Your task to perform on an android device: View the shopping cart on walmart.com. Add "dell xps" to the cart on walmart.com, then select checkout. Image 0: 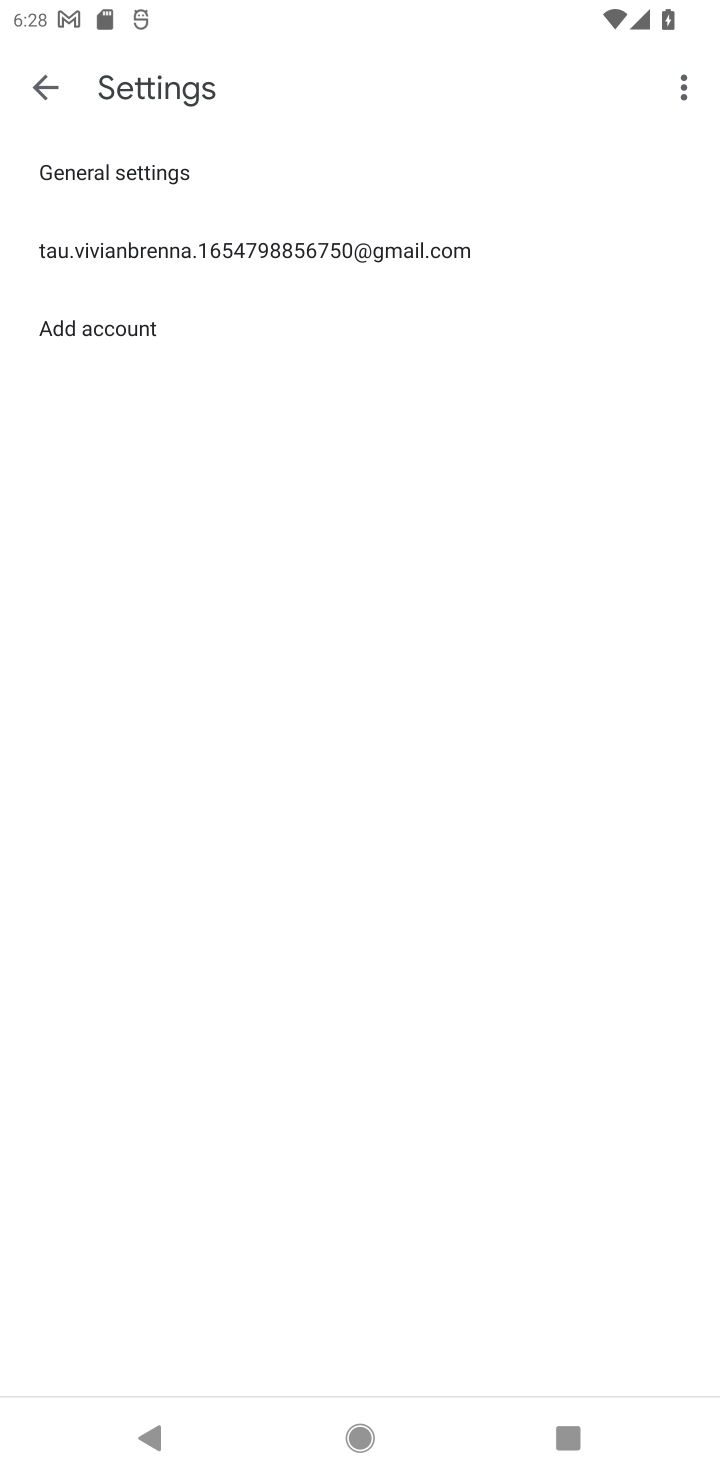
Step 0: press home button
Your task to perform on an android device: View the shopping cart on walmart.com. Add "dell xps" to the cart on walmart.com, then select checkout. Image 1: 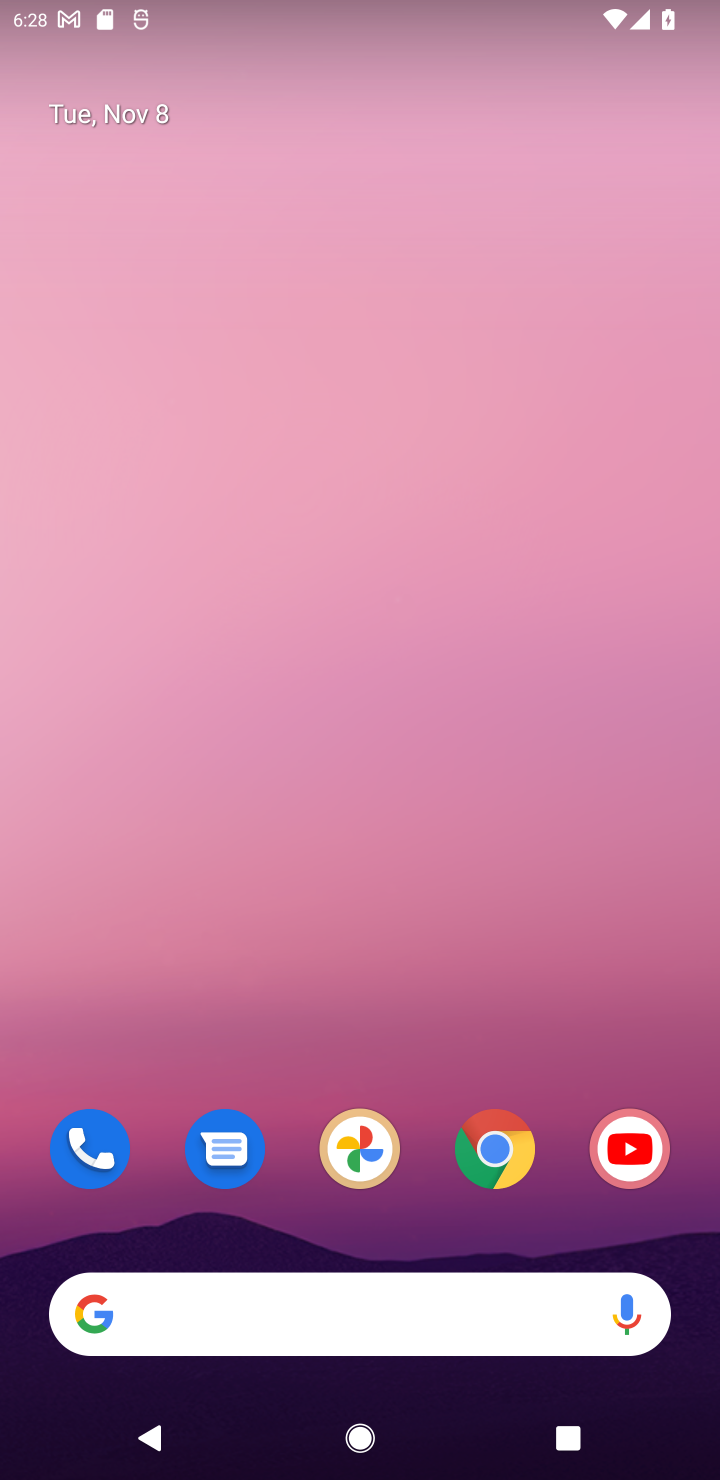
Step 1: click (463, 1147)
Your task to perform on an android device: View the shopping cart on walmart.com. Add "dell xps" to the cart on walmart.com, then select checkout. Image 2: 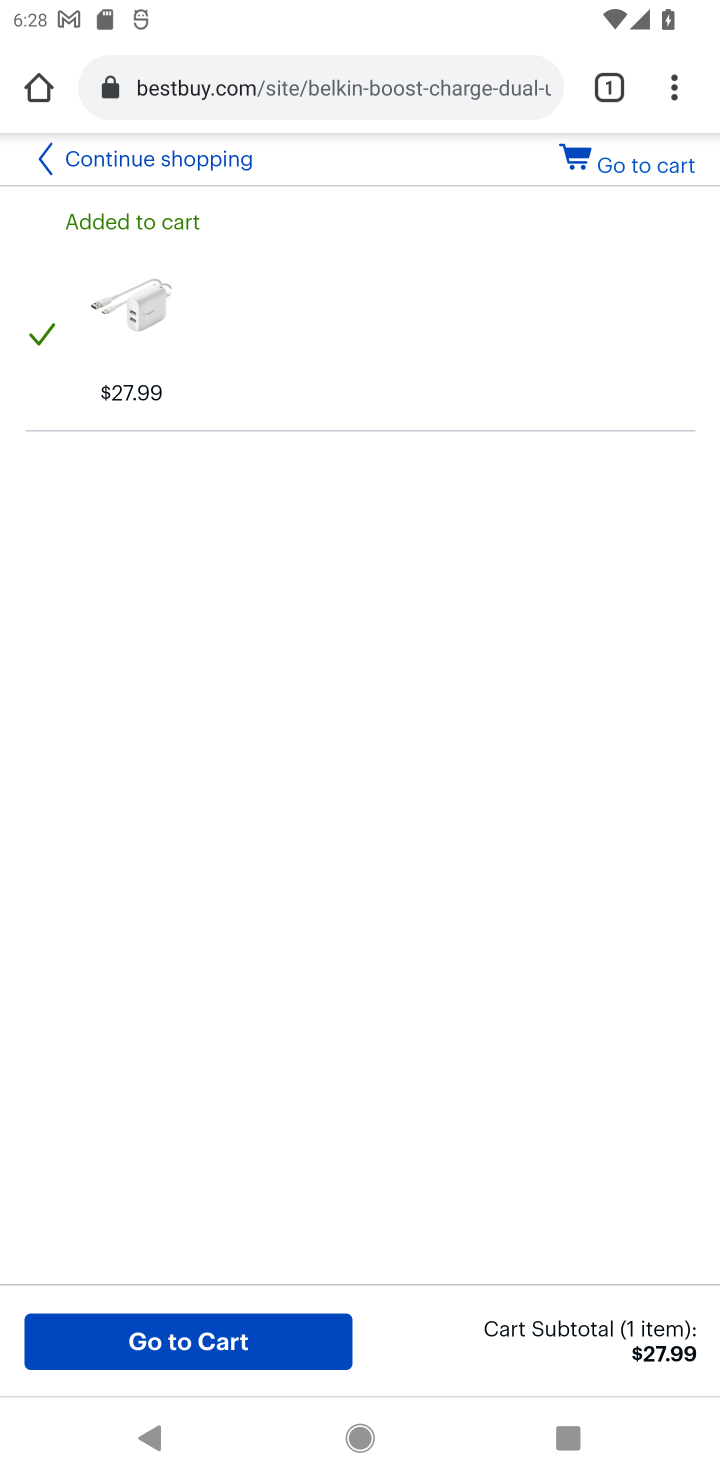
Step 2: press home button
Your task to perform on an android device: View the shopping cart on walmart.com. Add "dell xps" to the cart on walmart.com, then select checkout. Image 3: 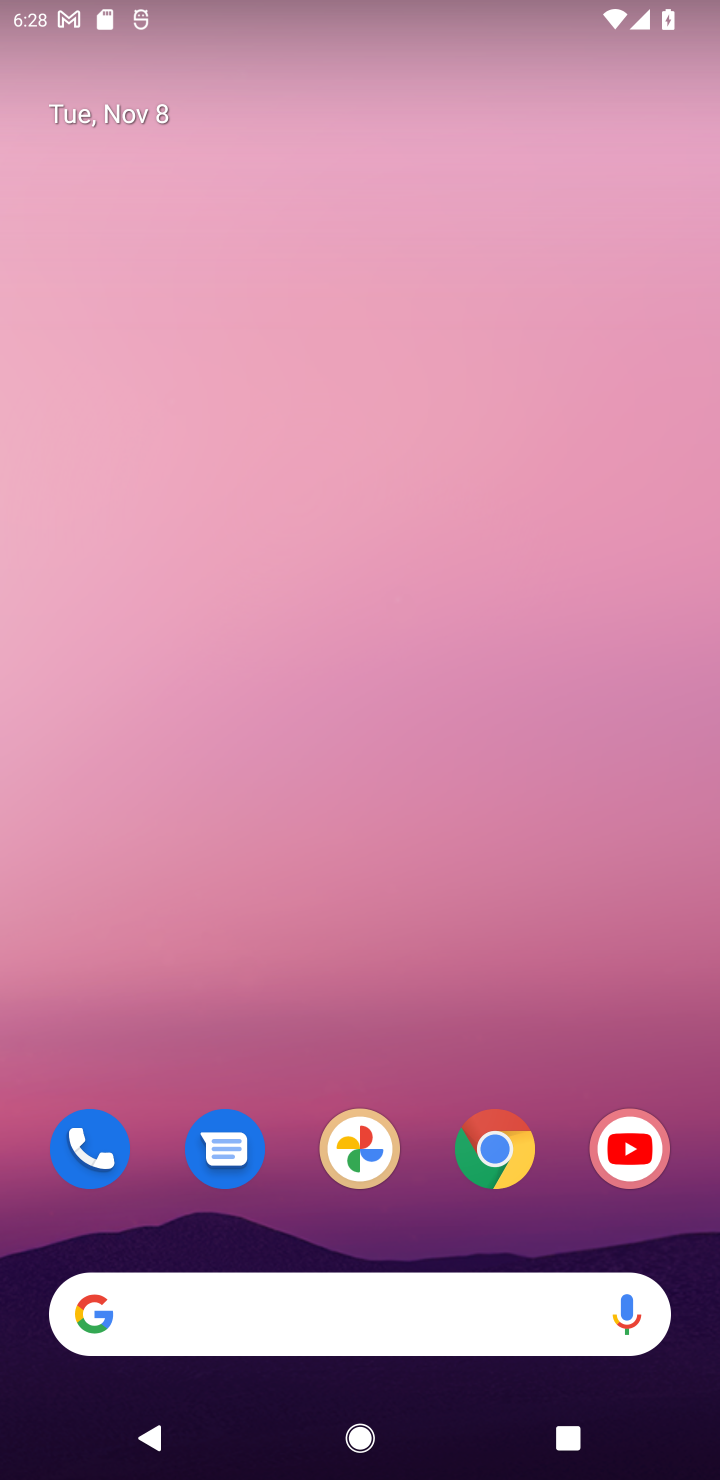
Step 3: click (500, 1158)
Your task to perform on an android device: View the shopping cart on walmart.com. Add "dell xps" to the cart on walmart.com, then select checkout. Image 4: 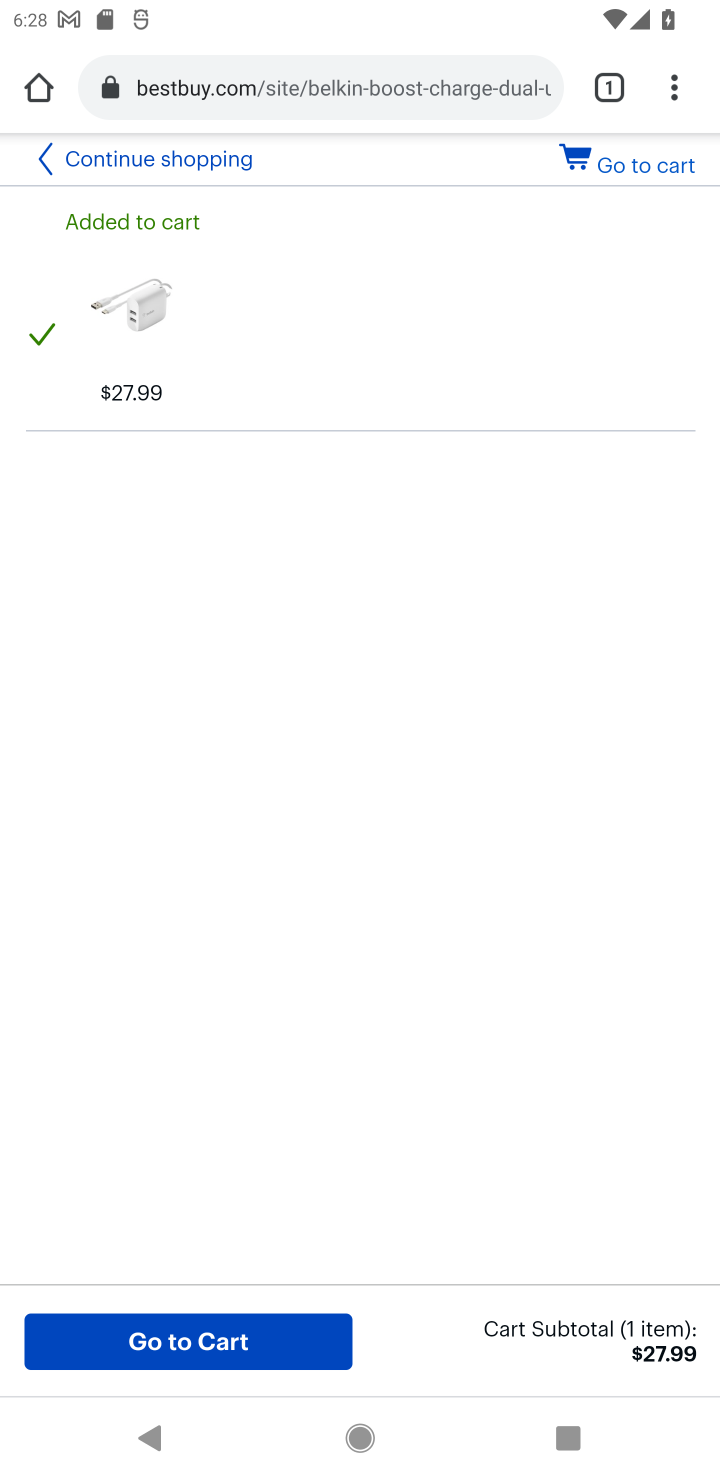
Step 4: click (398, 86)
Your task to perform on an android device: View the shopping cart on walmart.com. Add "dell xps" to the cart on walmart.com, then select checkout. Image 5: 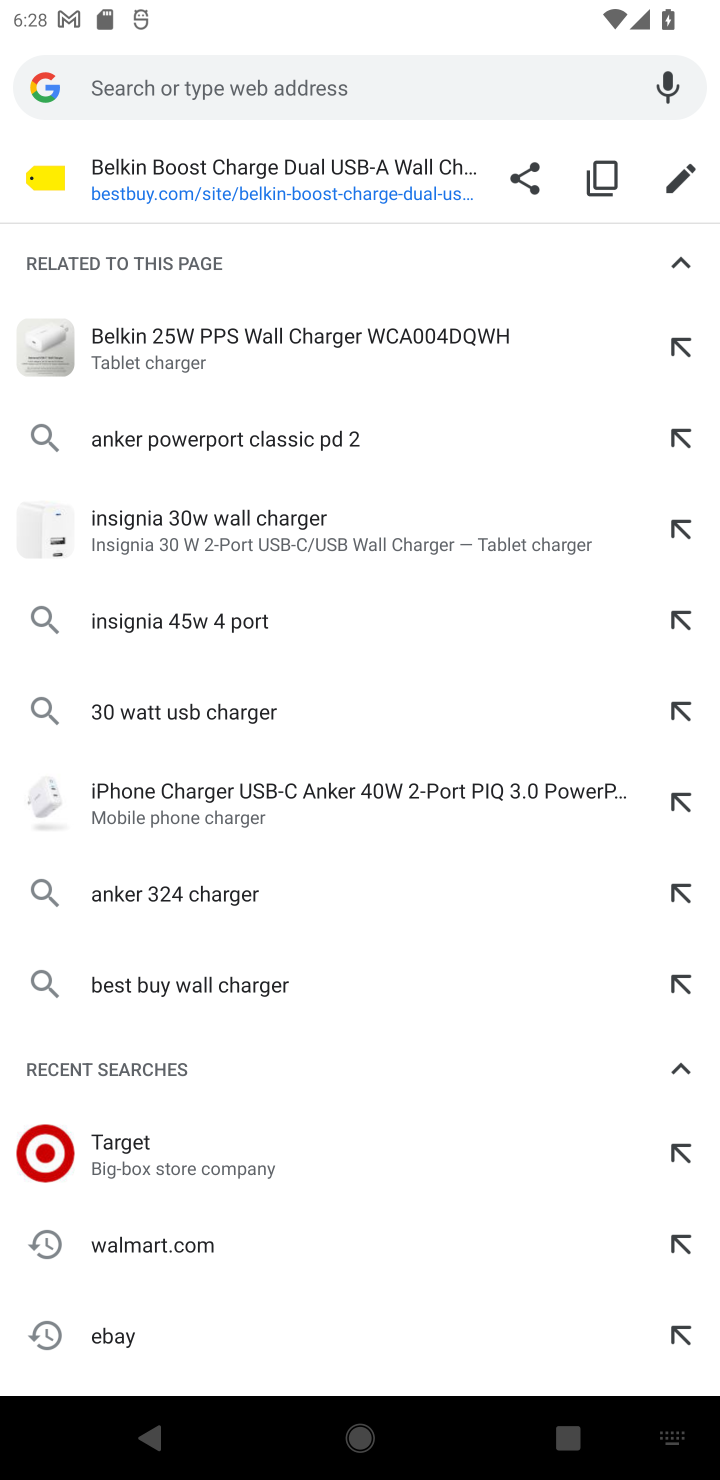
Step 5: type "walmart.com"
Your task to perform on an android device: View the shopping cart on walmart.com. Add "dell xps" to the cart on walmart.com, then select checkout. Image 6: 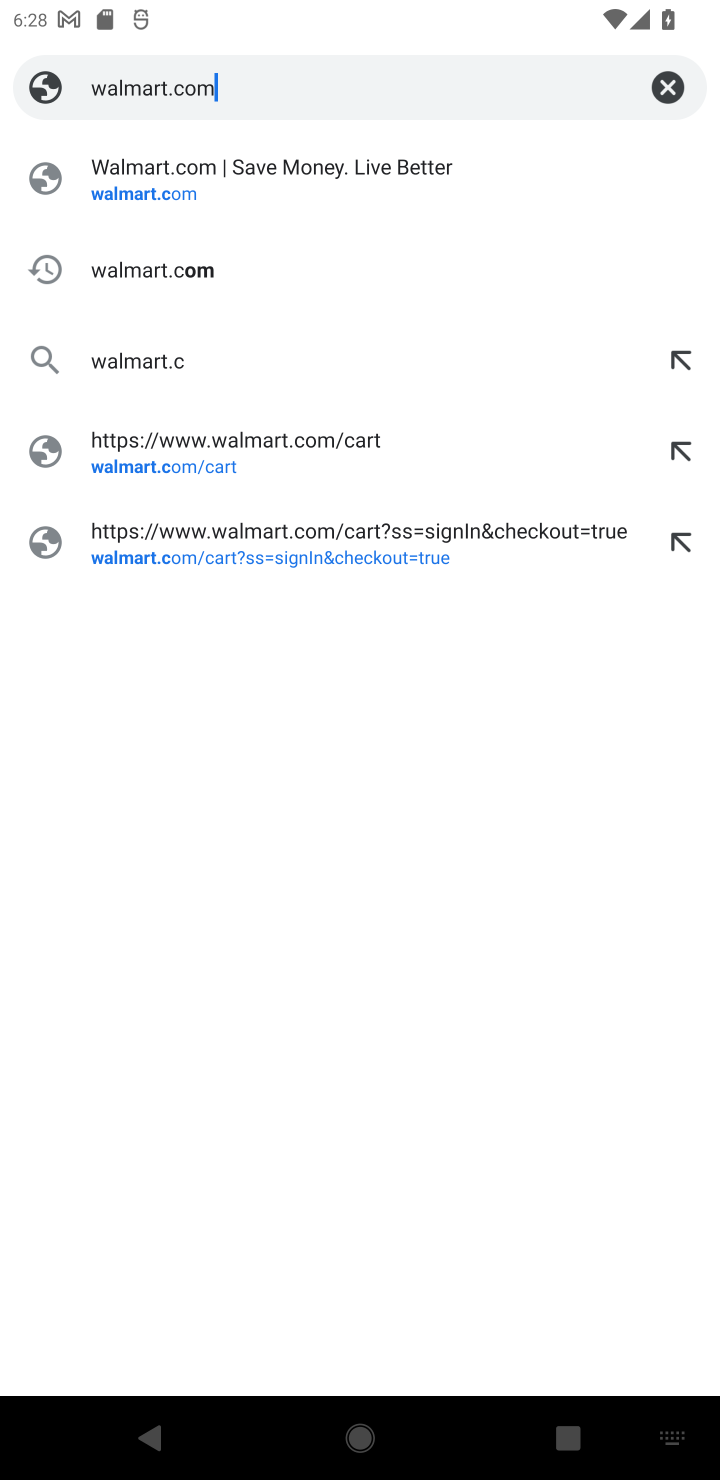
Step 6: press enter
Your task to perform on an android device: View the shopping cart on walmart.com. Add "dell xps" to the cart on walmart.com, then select checkout. Image 7: 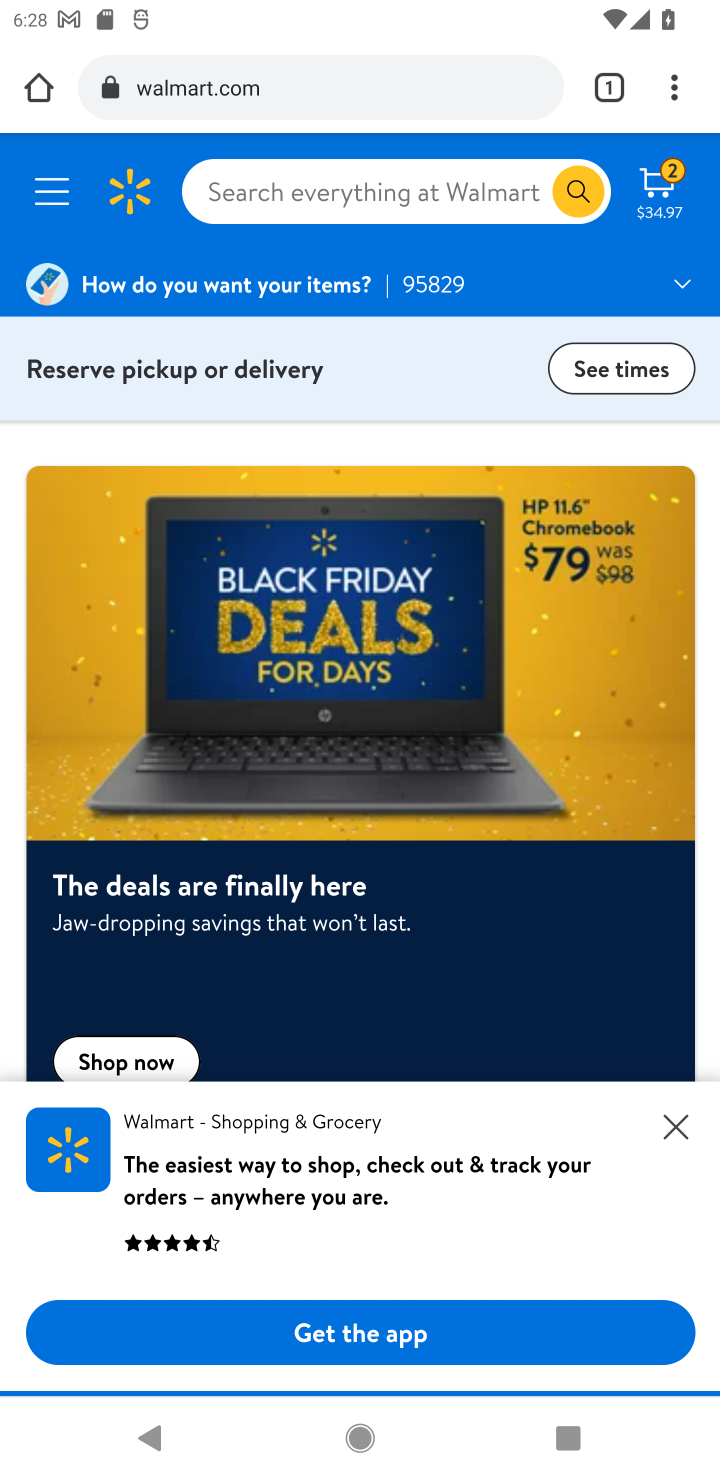
Step 7: click (662, 192)
Your task to perform on an android device: View the shopping cart on walmart.com. Add "dell xps" to the cart on walmart.com, then select checkout. Image 8: 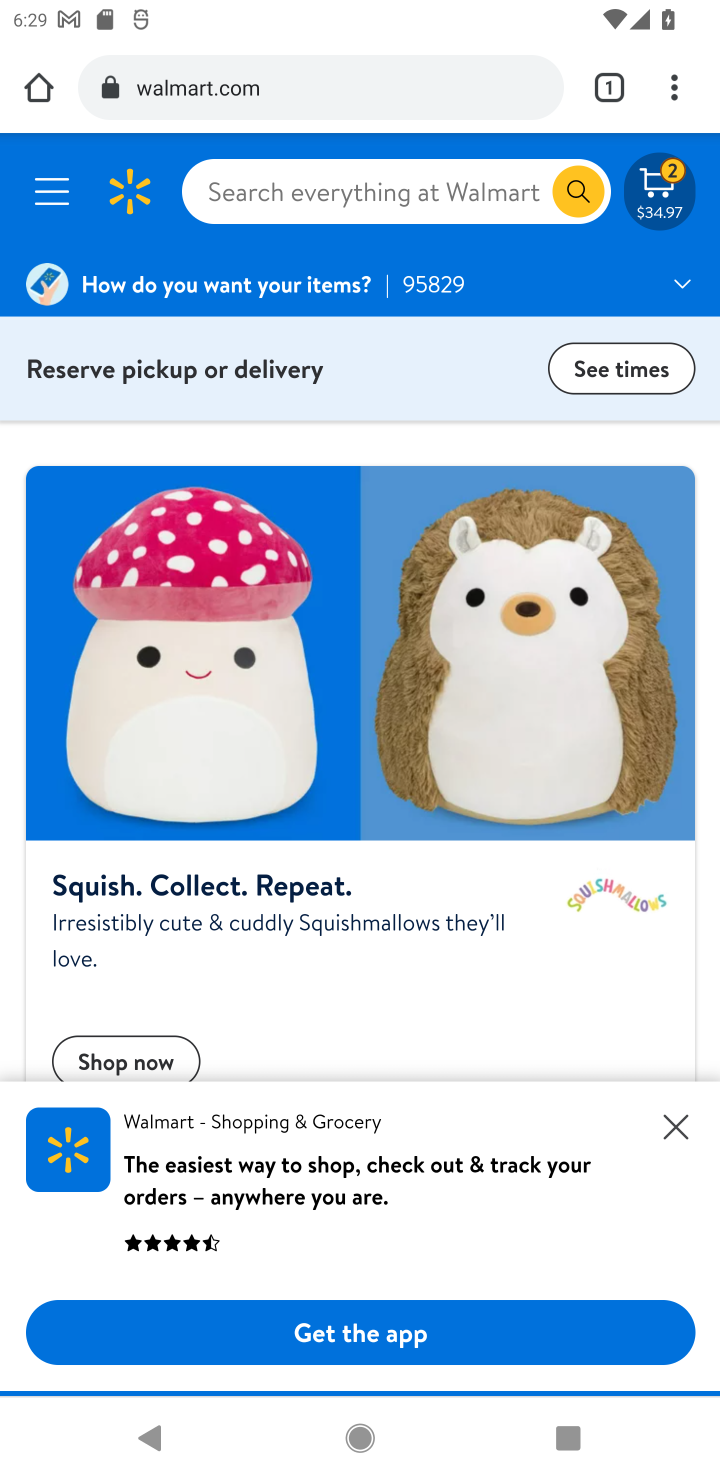
Step 8: click (674, 196)
Your task to perform on an android device: View the shopping cart on walmart.com. Add "dell xps" to the cart on walmart.com, then select checkout. Image 9: 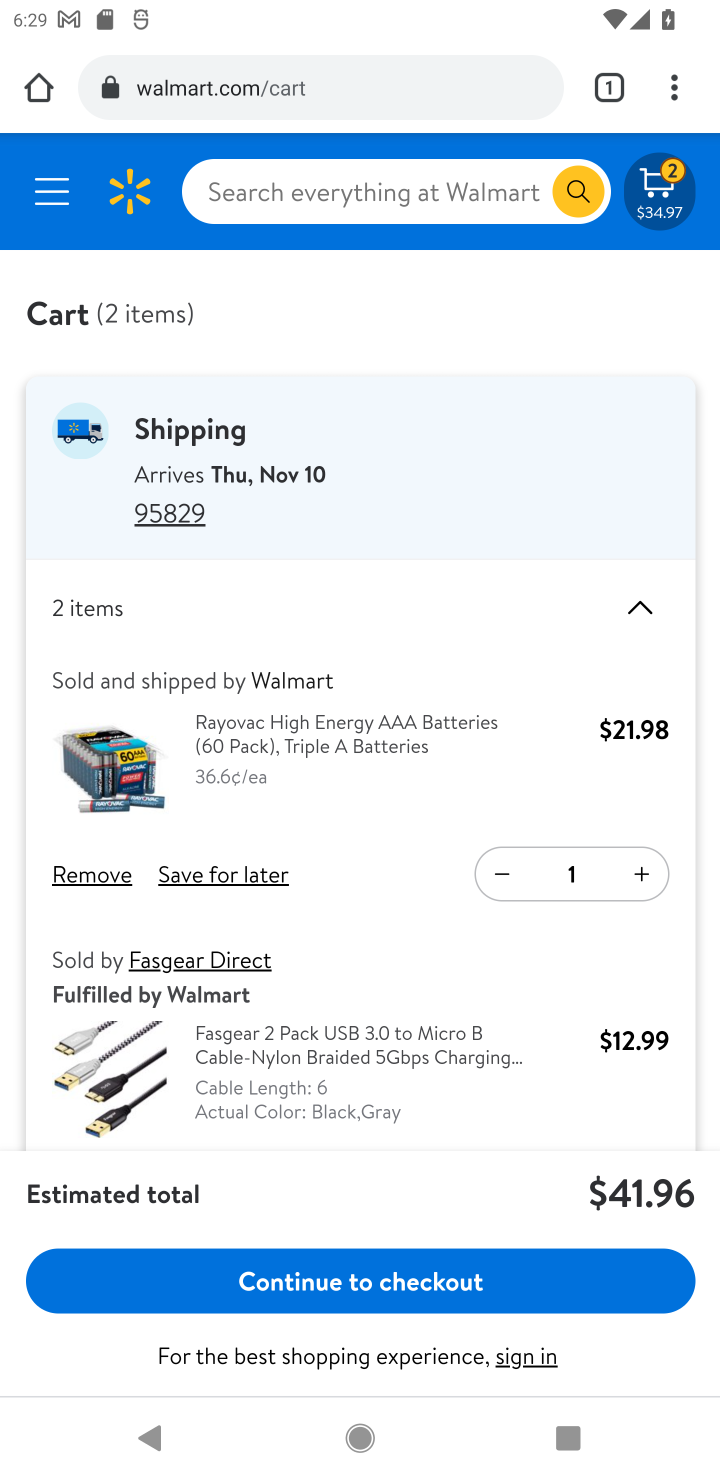
Step 9: click (331, 177)
Your task to perform on an android device: View the shopping cart on walmart.com. Add "dell xps" to the cart on walmart.com, then select checkout. Image 10: 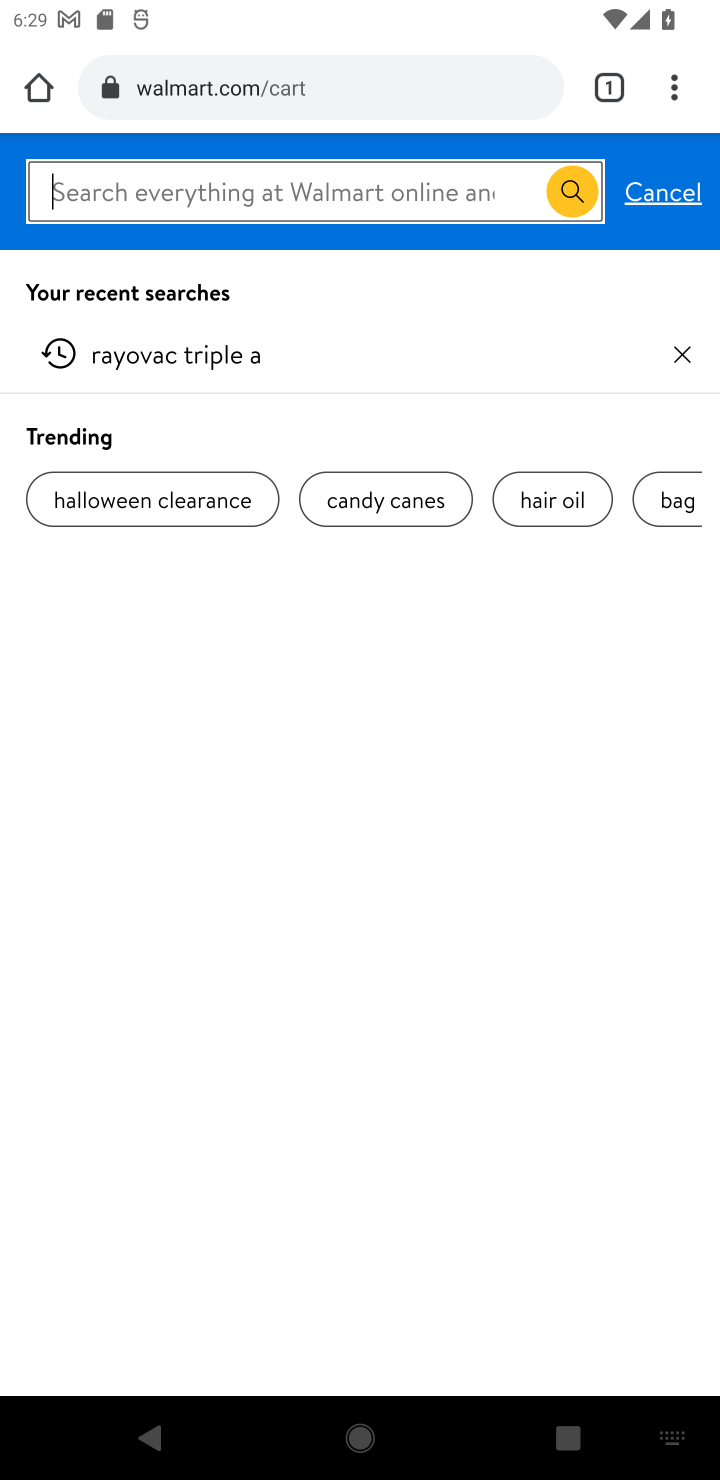
Step 10: type "dell xps"
Your task to perform on an android device: View the shopping cart on walmart.com. Add "dell xps" to the cart on walmart.com, then select checkout. Image 11: 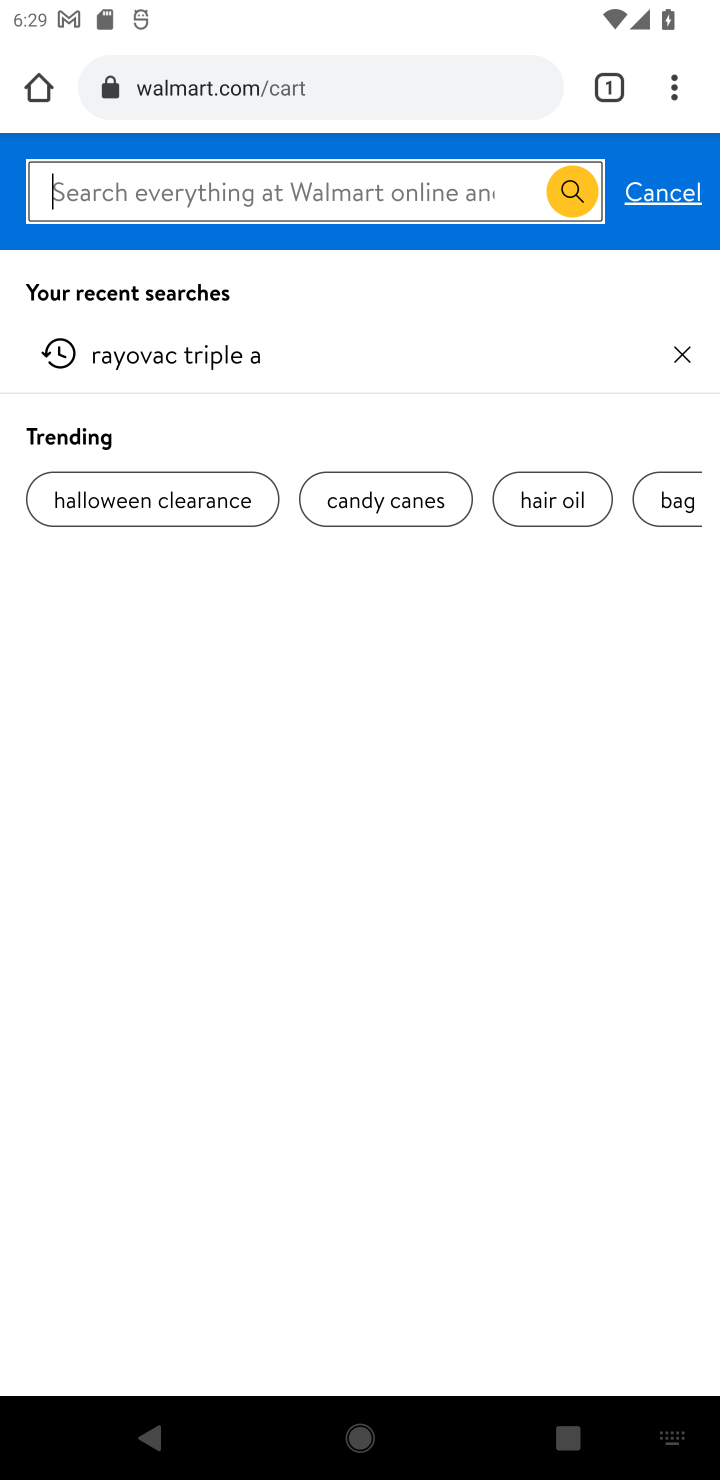
Step 11: press enter
Your task to perform on an android device: View the shopping cart on walmart.com. Add "dell xps" to the cart on walmart.com, then select checkout. Image 12: 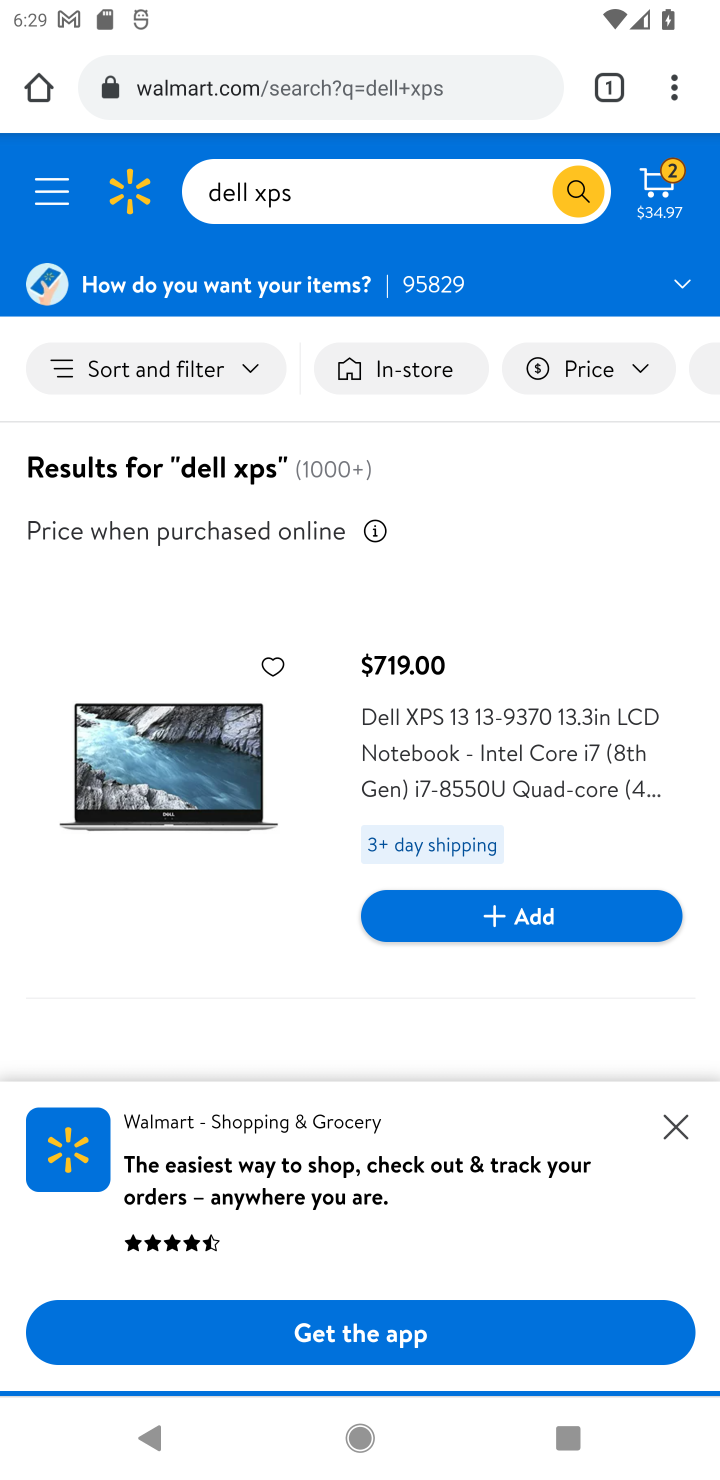
Step 12: click (155, 768)
Your task to perform on an android device: View the shopping cart on walmart.com. Add "dell xps" to the cart on walmart.com, then select checkout. Image 13: 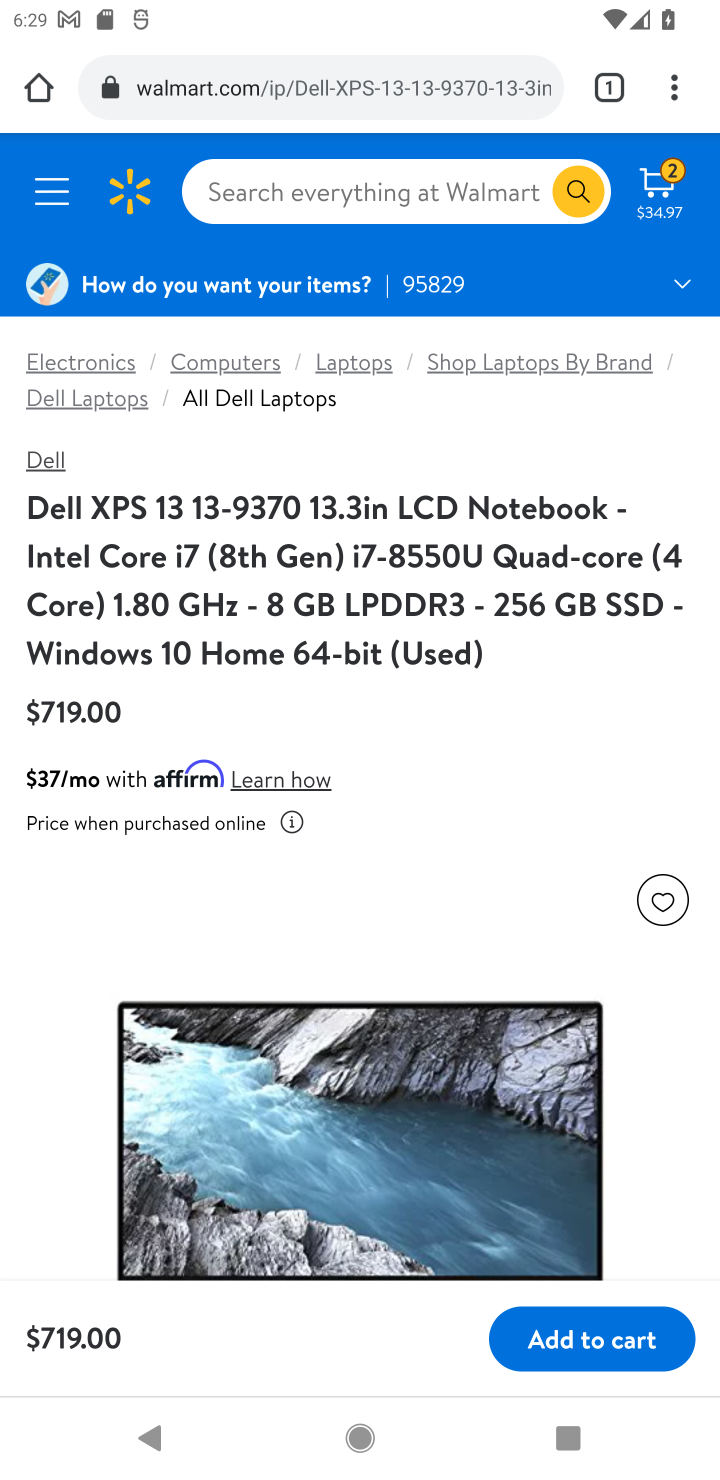
Step 13: click (593, 1341)
Your task to perform on an android device: View the shopping cart on walmart.com. Add "dell xps" to the cart on walmart.com, then select checkout. Image 14: 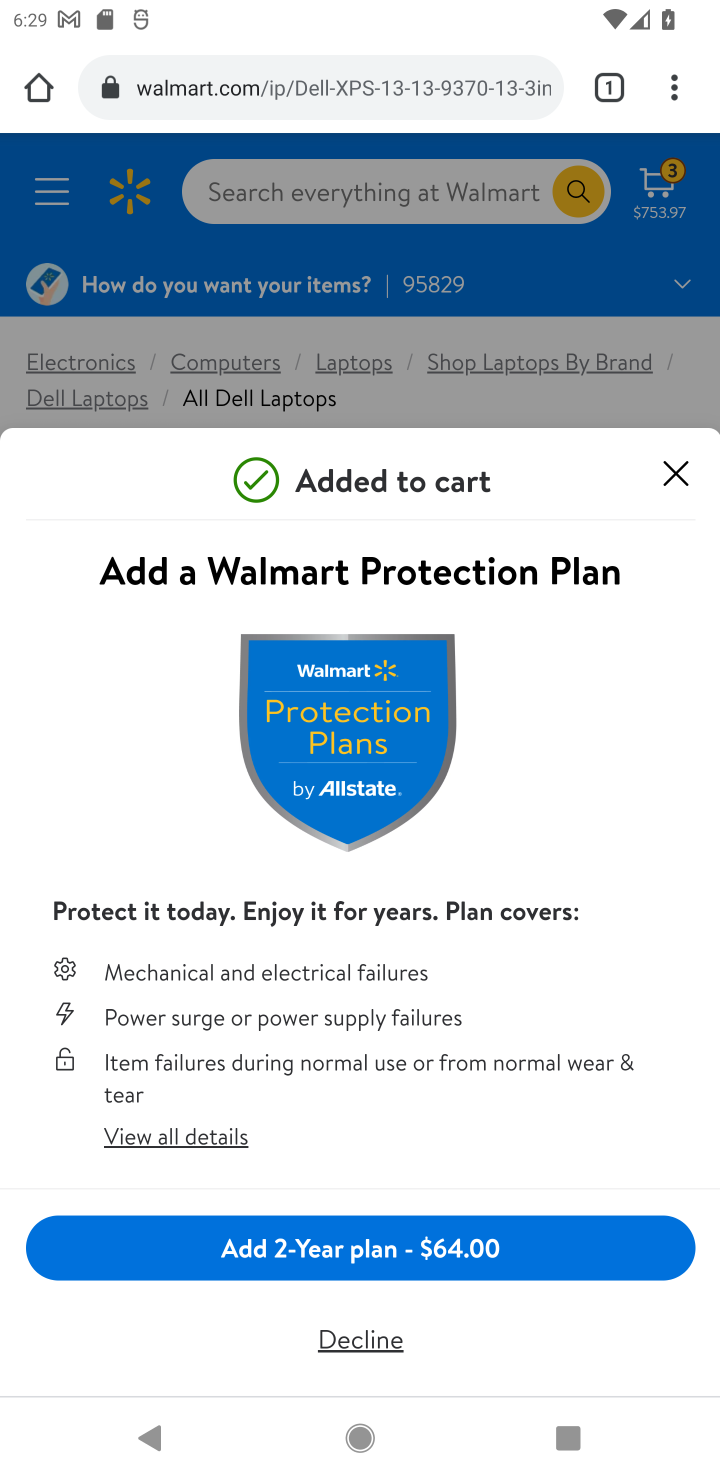
Step 14: click (674, 478)
Your task to perform on an android device: View the shopping cart on walmart.com. Add "dell xps" to the cart on walmart.com, then select checkout. Image 15: 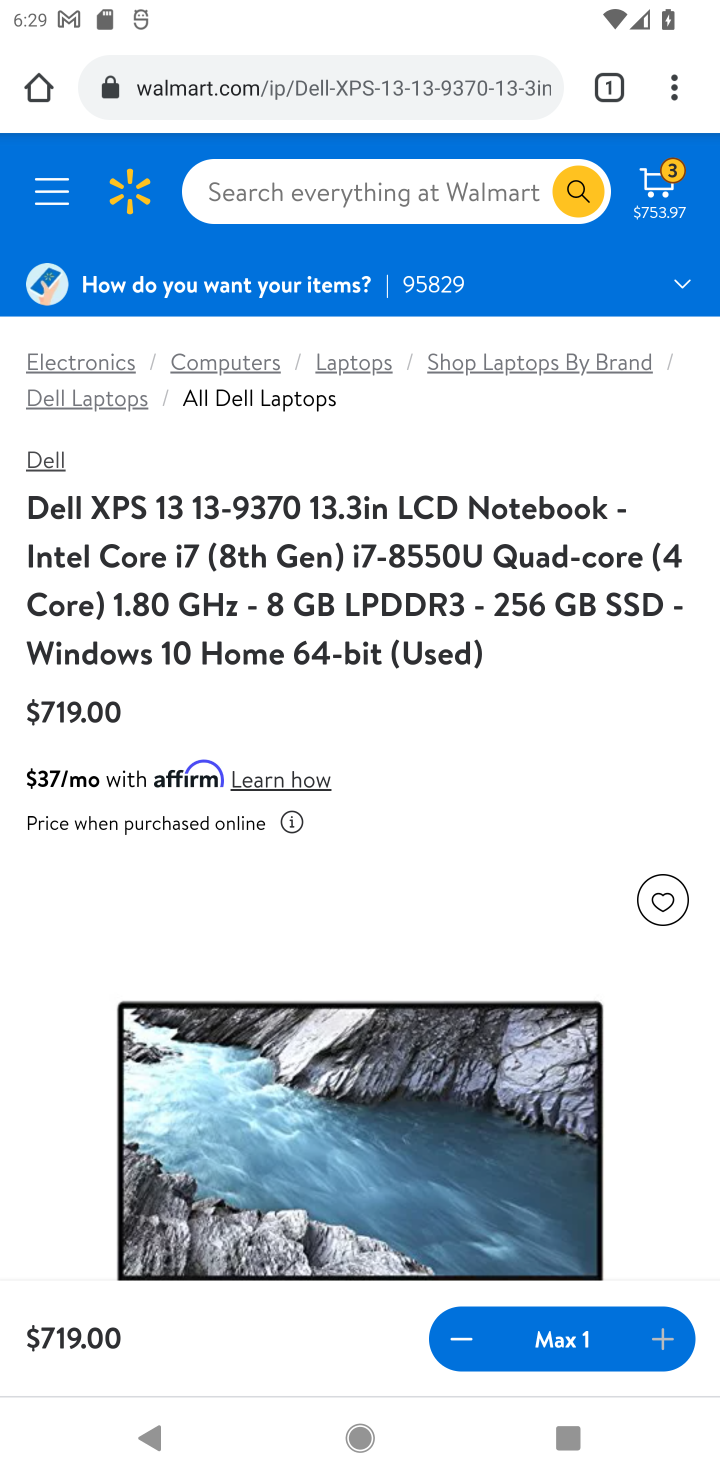
Step 15: drag from (543, 717) to (511, 455)
Your task to perform on an android device: View the shopping cart on walmart.com. Add "dell xps" to the cart on walmart.com, then select checkout. Image 16: 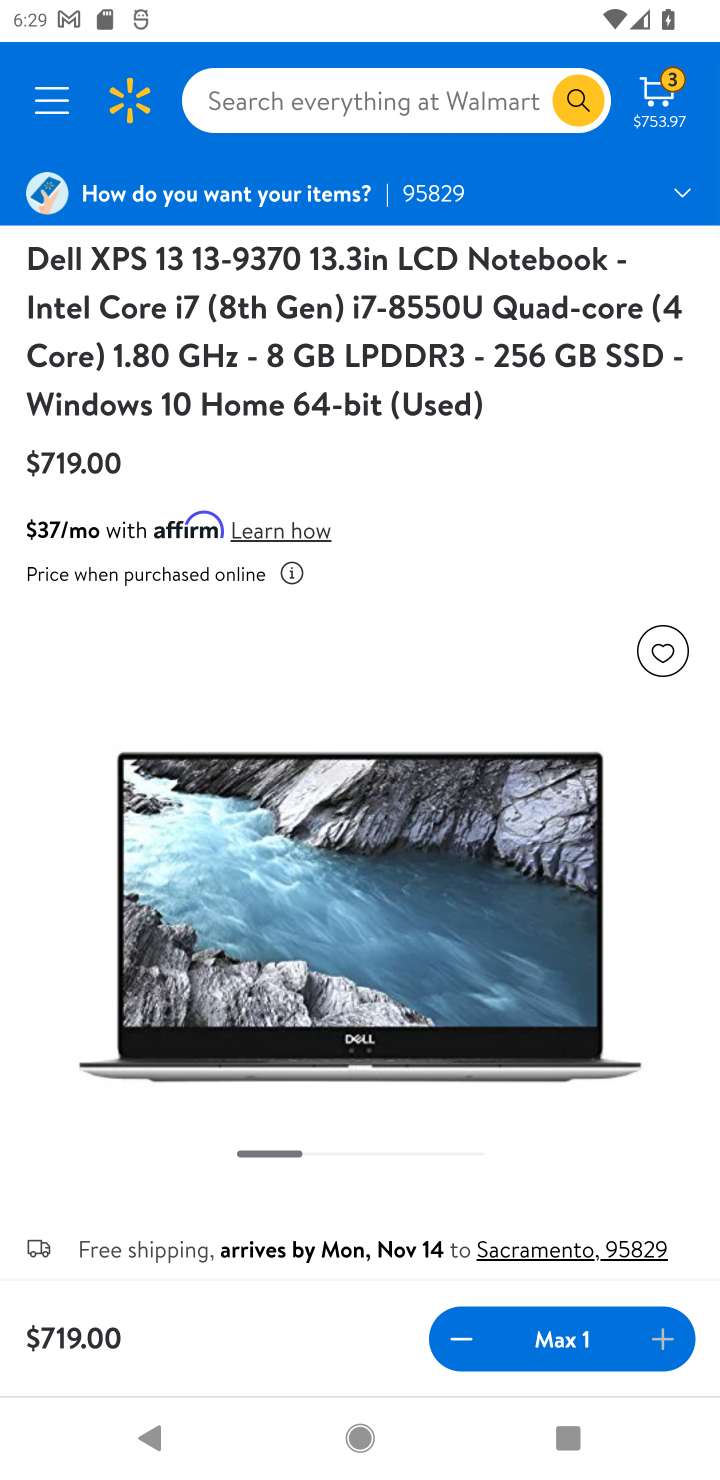
Step 16: click (662, 78)
Your task to perform on an android device: View the shopping cart on walmart.com. Add "dell xps" to the cart on walmart.com, then select checkout. Image 17: 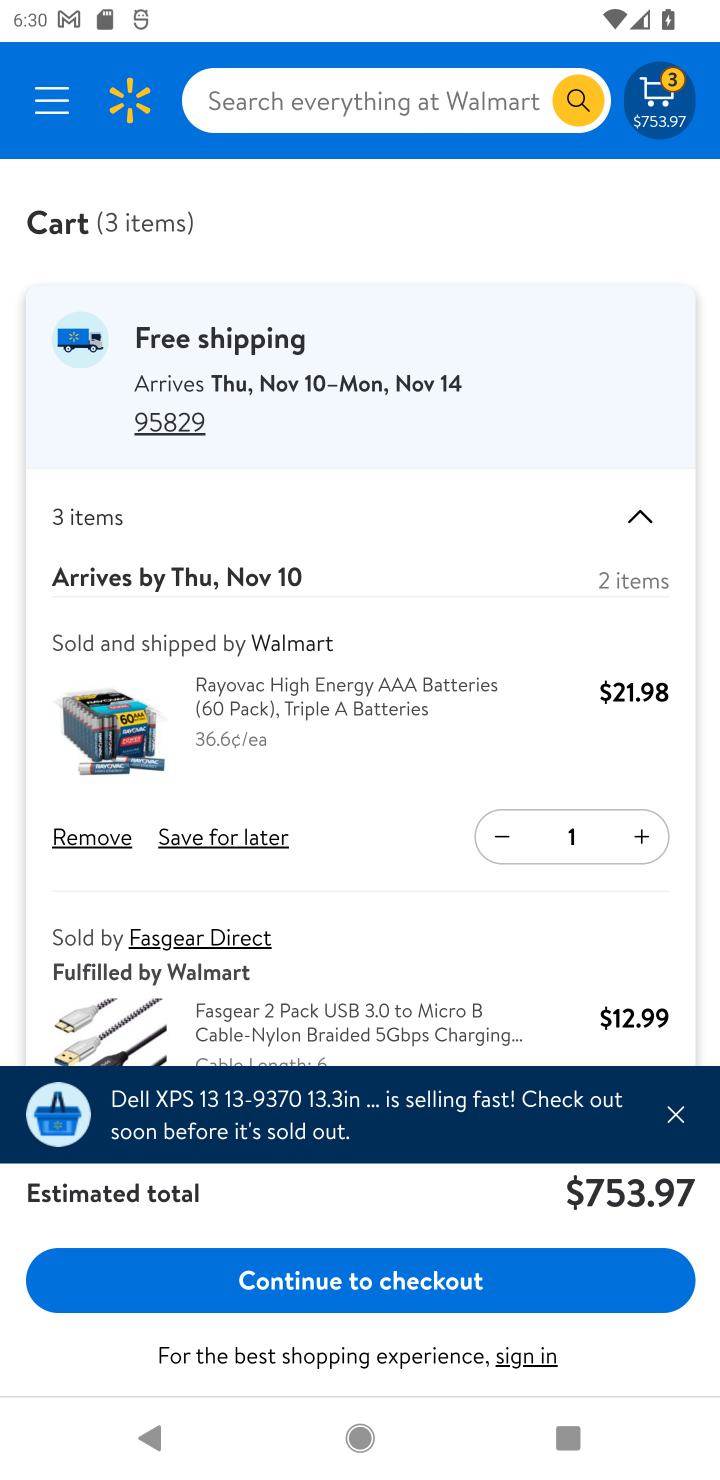
Step 17: click (414, 1285)
Your task to perform on an android device: View the shopping cart on walmart.com. Add "dell xps" to the cart on walmart.com, then select checkout. Image 18: 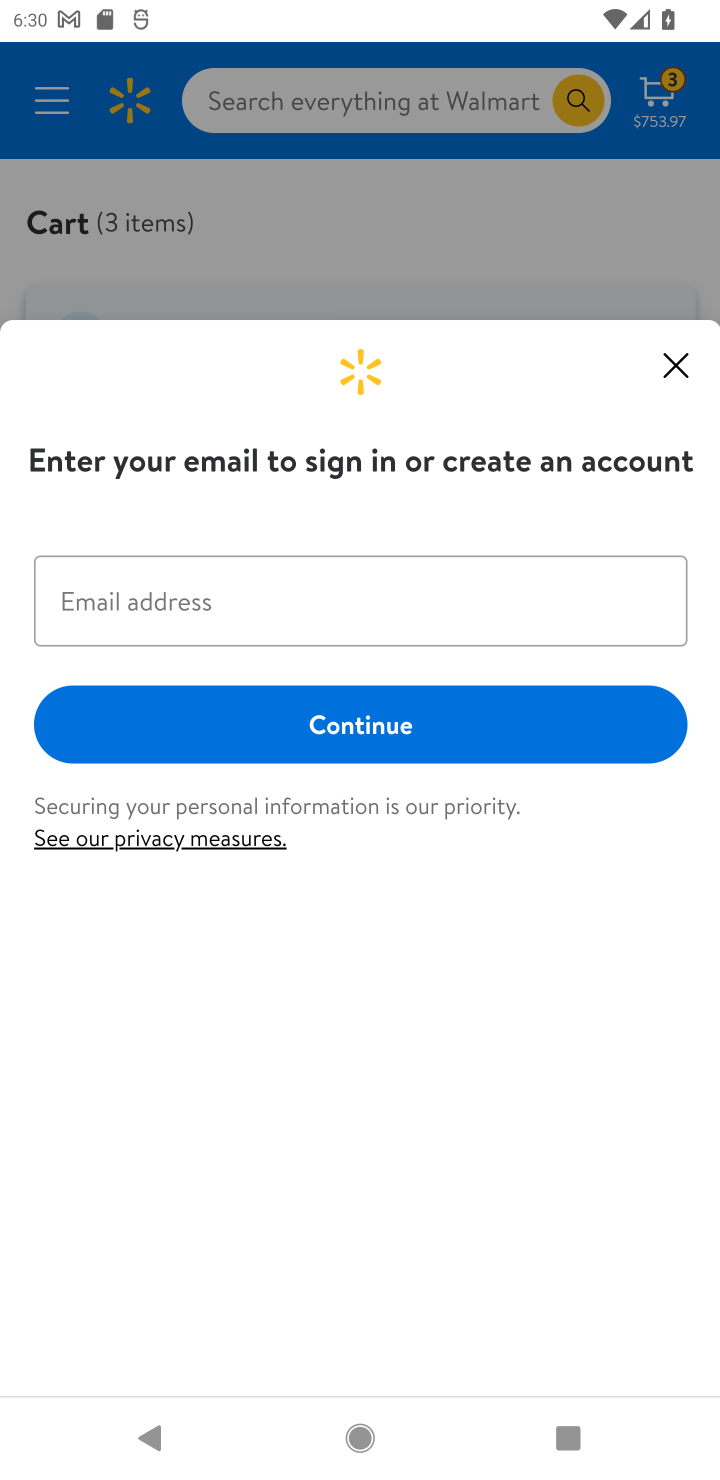
Step 18: task complete